Your task to perform on an android device: Open the calendar app, open the side menu, and click the "Day" option Image 0: 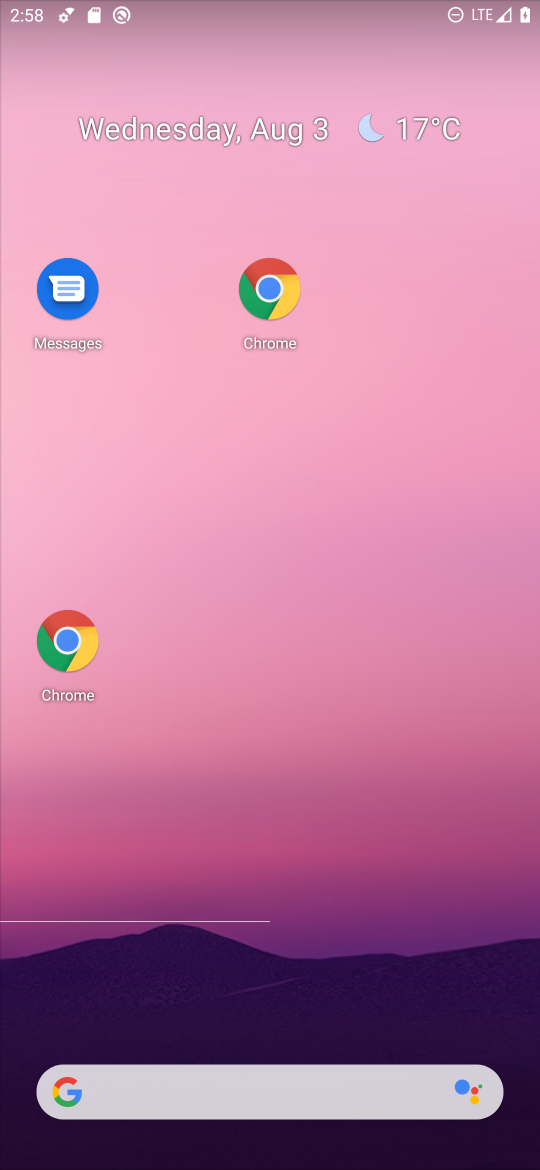
Step 0: drag from (360, 1009) to (357, 78)
Your task to perform on an android device: Open the calendar app, open the side menu, and click the "Day" option Image 1: 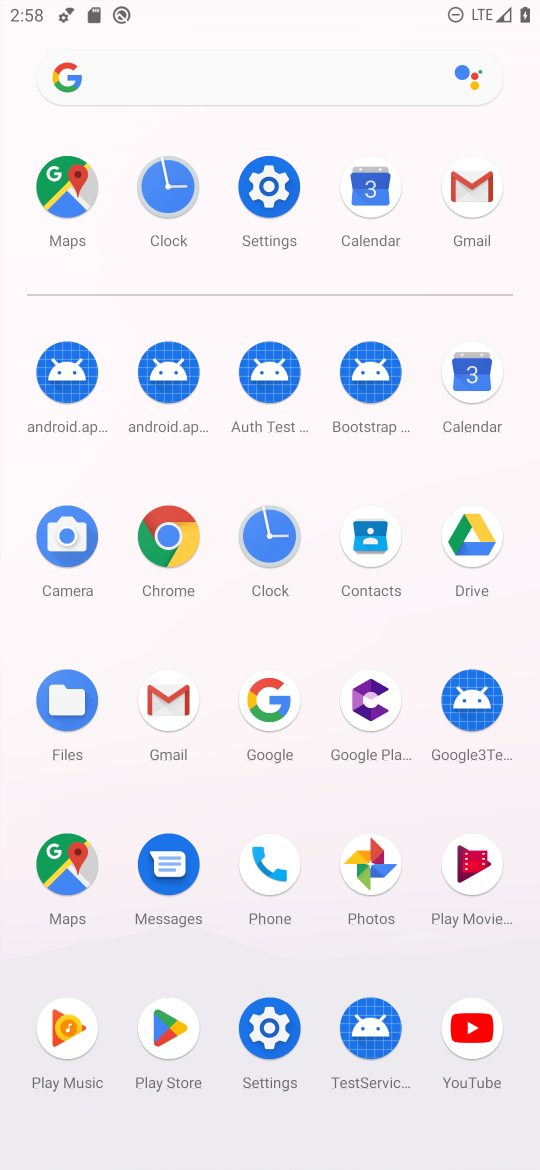
Step 1: click (363, 211)
Your task to perform on an android device: Open the calendar app, open the side menu, and click the "Day" option Image 2: 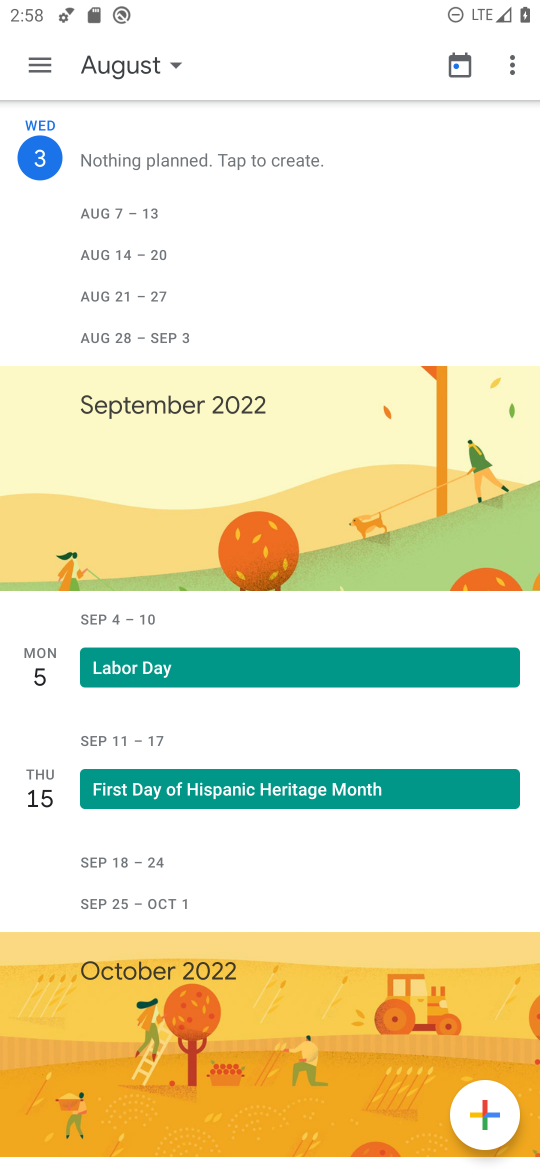
Step 2: click (26, 80)
Your task to perform on an android device: Open the calendar app, open the side menu, and click the "Day" option Image 3: 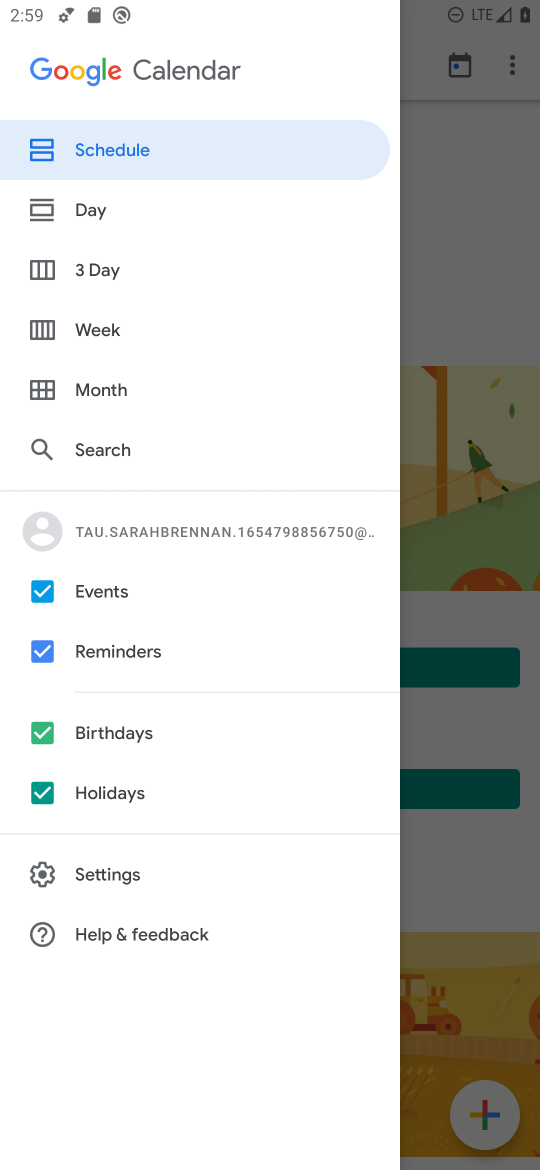
Step 3: click (115, 220)
Your task to perform on an android device: Open the calendar app, open the side menu, and click the "Day" option Image 4: 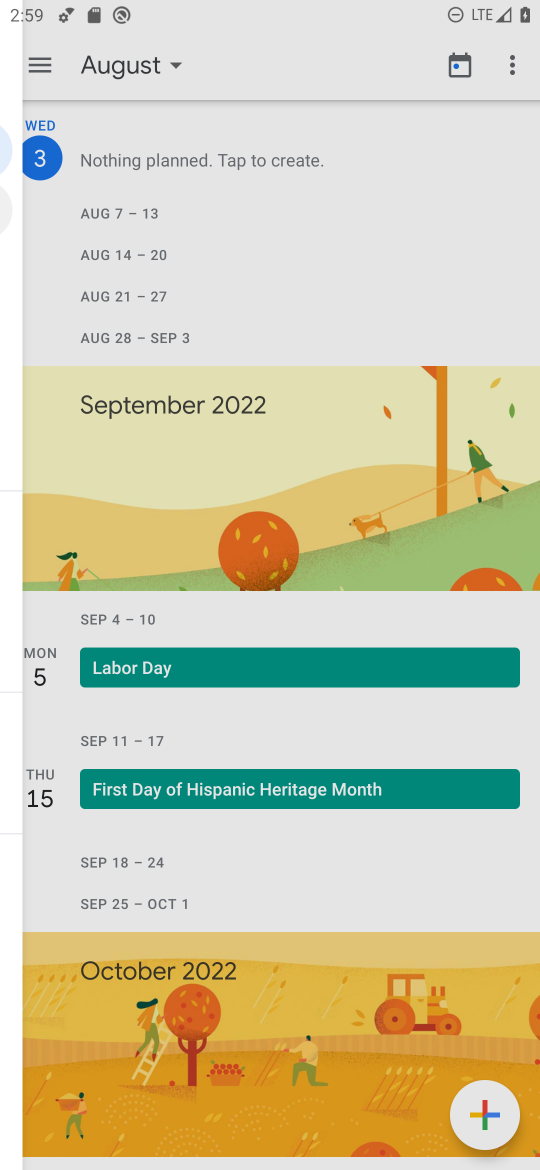
Step 4: task complete